Your task to perform on an android device: visit the assistant section in the google photos Image 0: 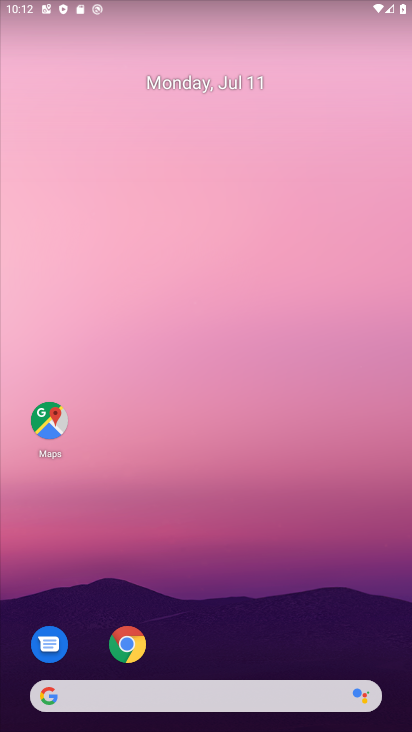
Step 0: drag from (214, 651) to (217, 183)
Your task to perform on an android device: visit the assistant section in the google photos Image 1: 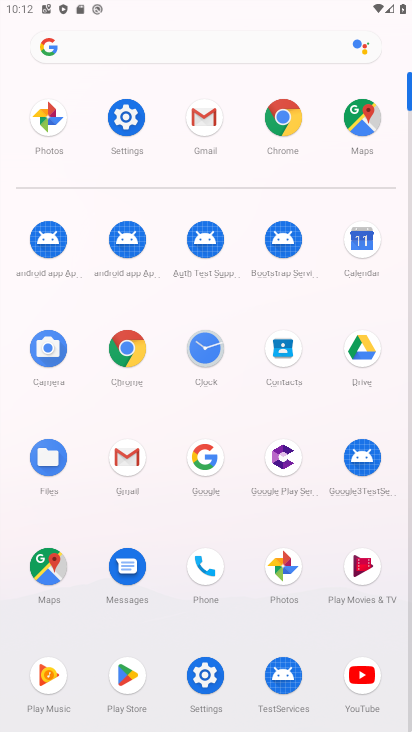
Step 1: click (280, 561)
Your task to perform on an android device: visit the assistant section in the google photos Image 2: 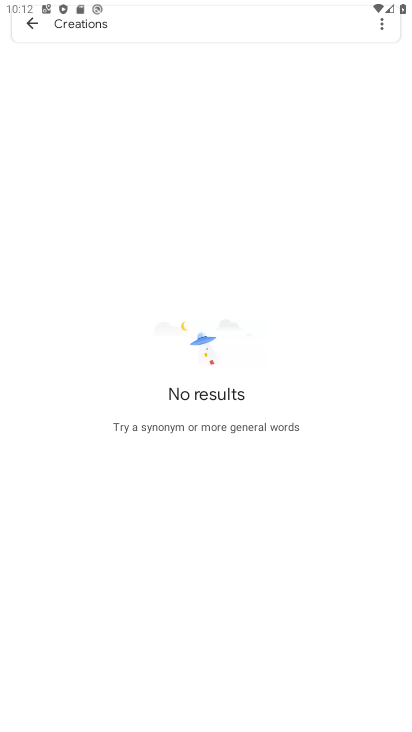
Step 2: press home button
Your task to perform on an android device: visit the assistant section in the google photos Image 3: 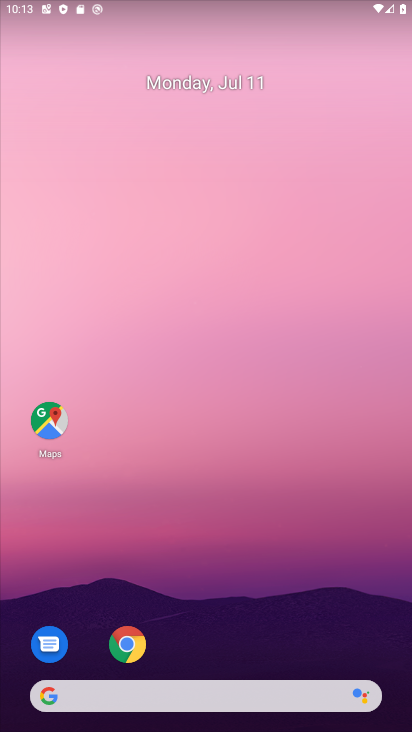
Step 3: drag from (240, 652) to (244, 69)
Your task to perform on an android device: visit the assistant section in the google photos Image 4: 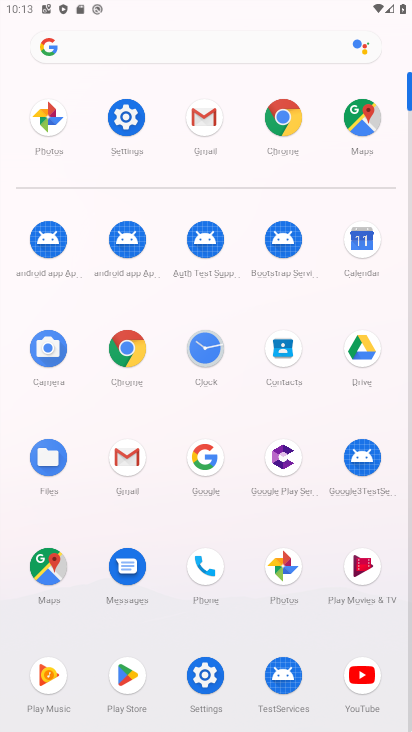
Step 4: click (287, 559)
Your task to perform on an android device: visit the assistant section in the google photos Image 5: 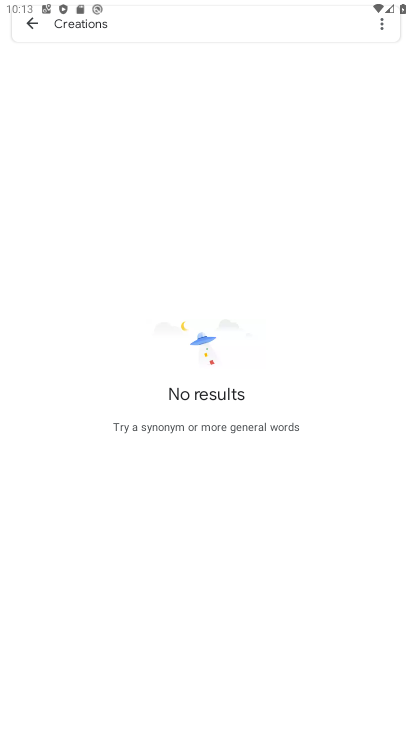
Step 5: click (27, 18)
Your task to perform on an android device: visit the assistant section in the google photos Image 6: 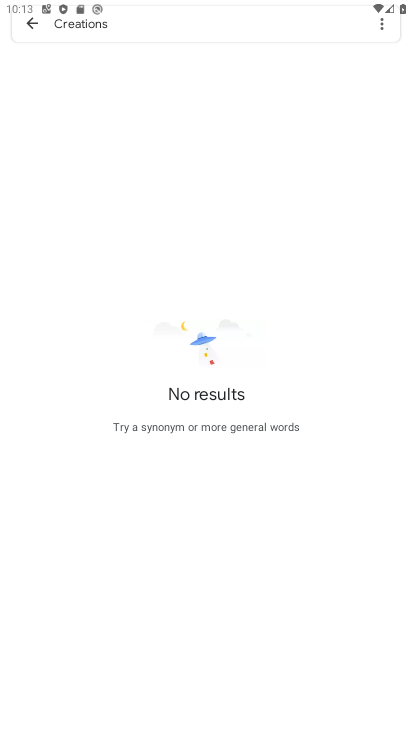
Step 6: press back button
Your task to perform on an android device: visit the assistant section in the google photos Image 7: 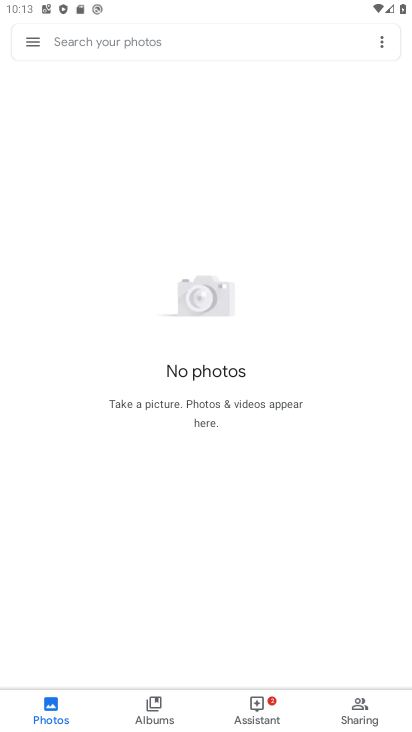
Step 7: click (27, 37)
Your task to perform on an android device: visit the assistant section in the google photos Image 8: 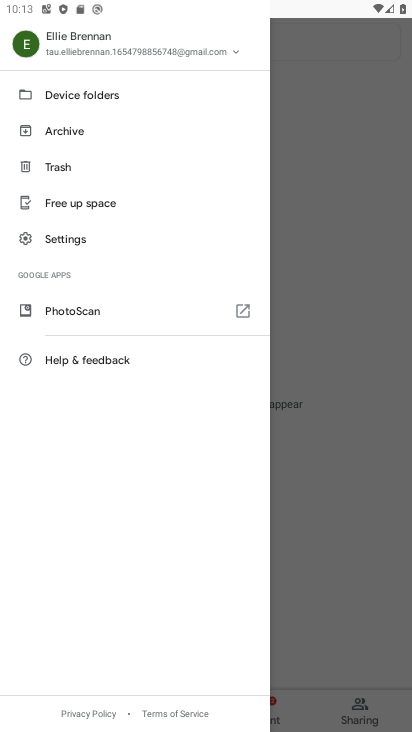
Step 8: click (338, 551)
Your task to perform on an android device: visit the assistant section in the google photos Image 9: 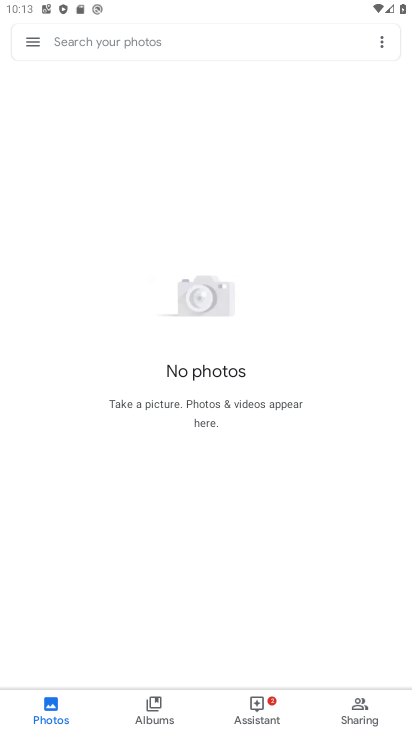
Step 9: click (361, 710)
Your task to perform on an android device: visit the assistant section in the google photos Image 10: 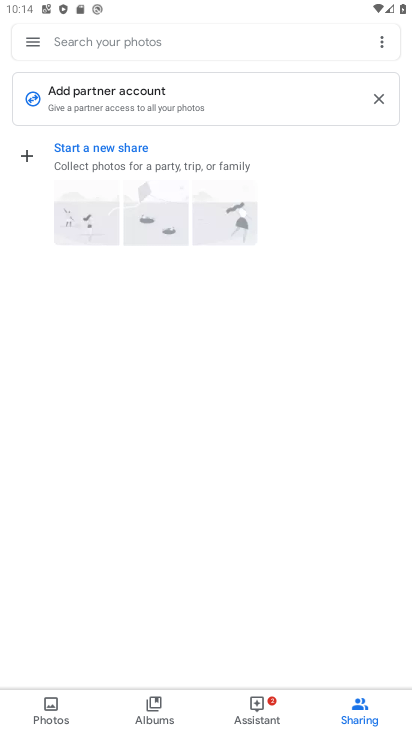
Step 10: click (262, 714)
Your task to perform on an android device: visit the assistant section in the google photos Image 11: 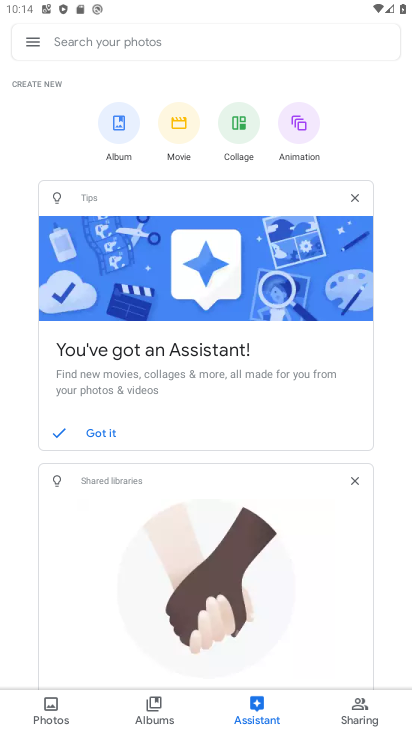
Step 11: task complete